Your task to perform on an android device: Go to Yahoo.com Image 0: 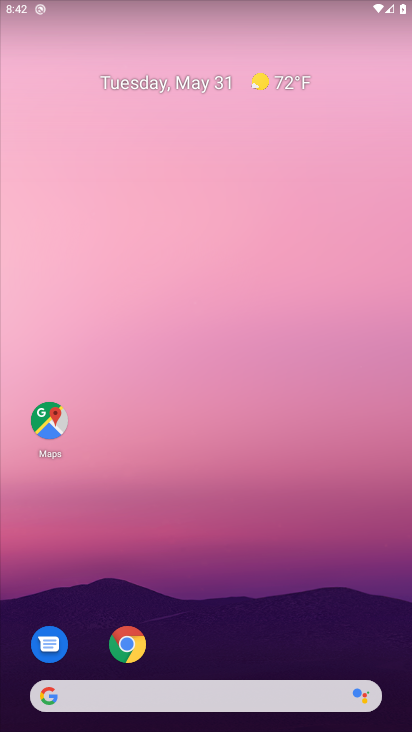
Step 0: press home button
Your task to perform on an android device: Go to Yahoo.com Image 1: 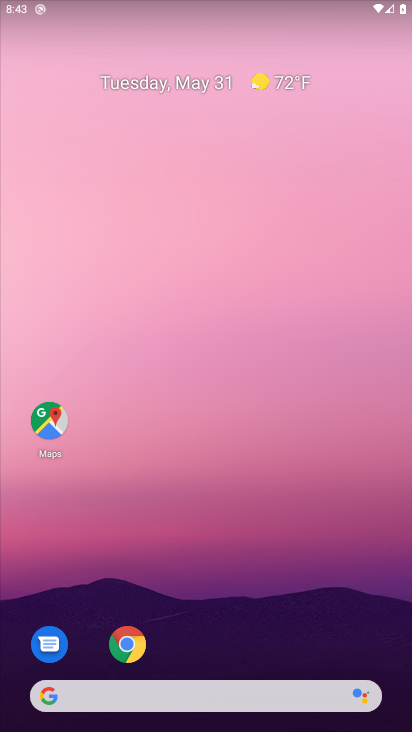
Step 1: click (123, 639)
Your task to perform on an android device: Go to Yahoo.com Image 2: 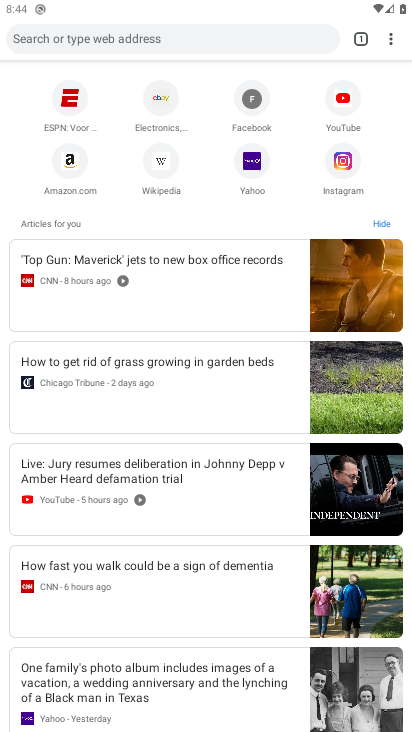
Step 2: click (250, 155)
Your task to perform on an android device: Go to Yahoo.com Image 3: 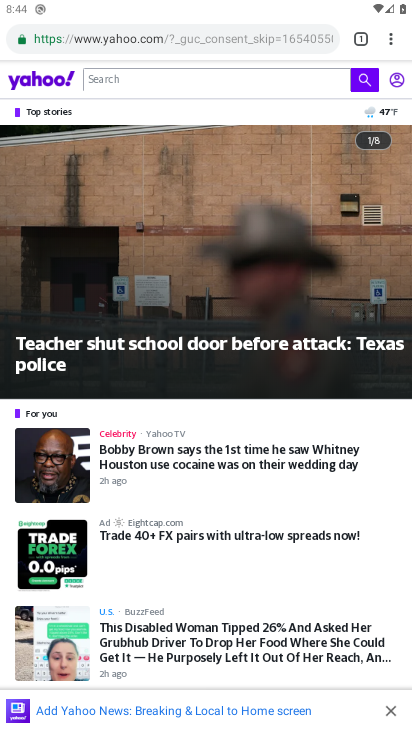
Step 3: task complete